Your task to perform on an android device: Find coffee shops on Maps Image 0: 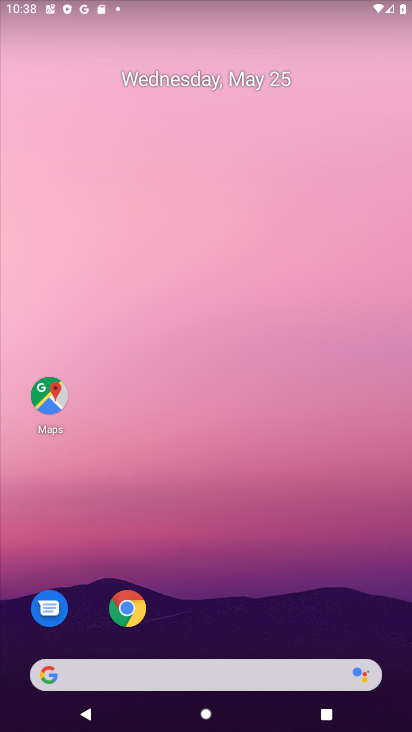
Step 0: click (47, 400)
Your task to perform on an android device: Find coffee shops on Maps Image 1: 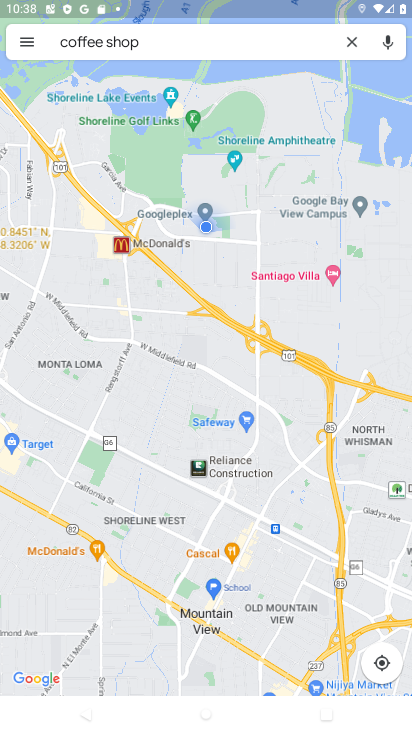
Step 1: click (166, 45)
Your task to perform on an android device: Find coffee shops on Maps Image 2: 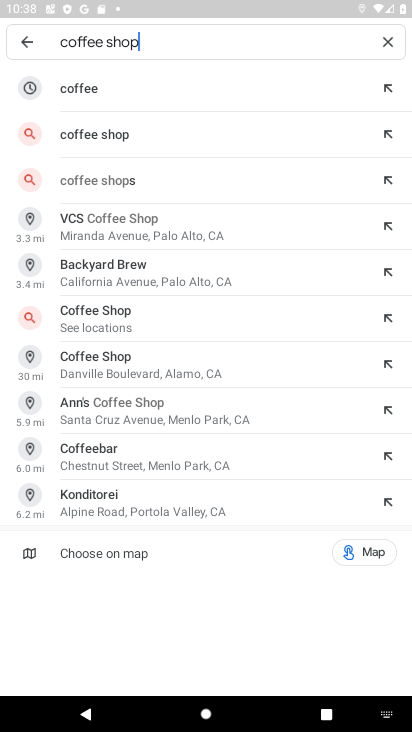
Step 2: click (100, 132)
Your task to perform on an android device: Find coffee shops on Maps Image 3: 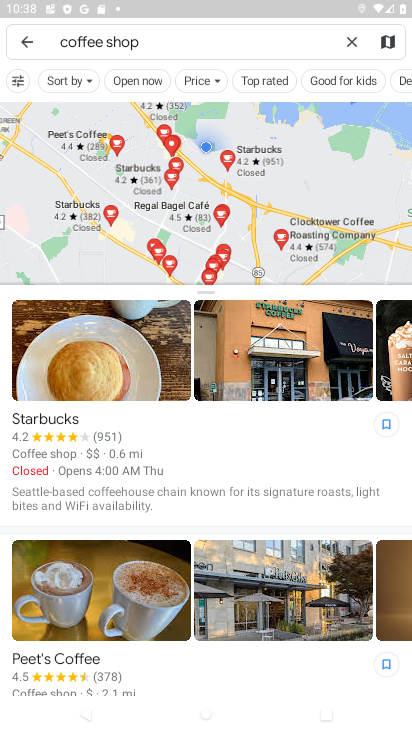
Step 3: task complete